Your task to perform on an android device: Open Maps and search for coffee Image 0: 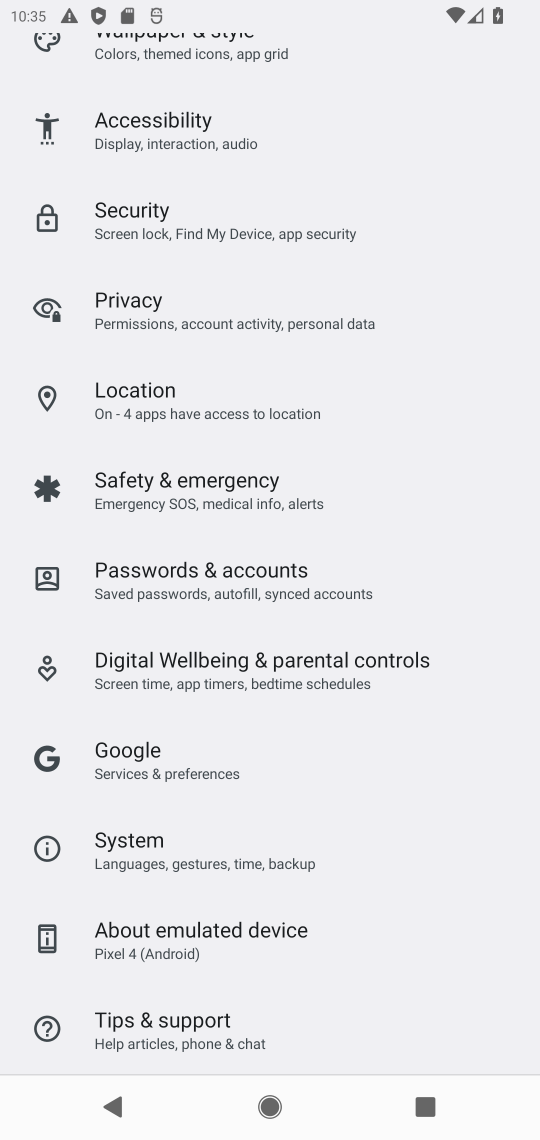
Step 0: press home button
Your task to perform on an android device: Open Maps and search for coffee Image 1: 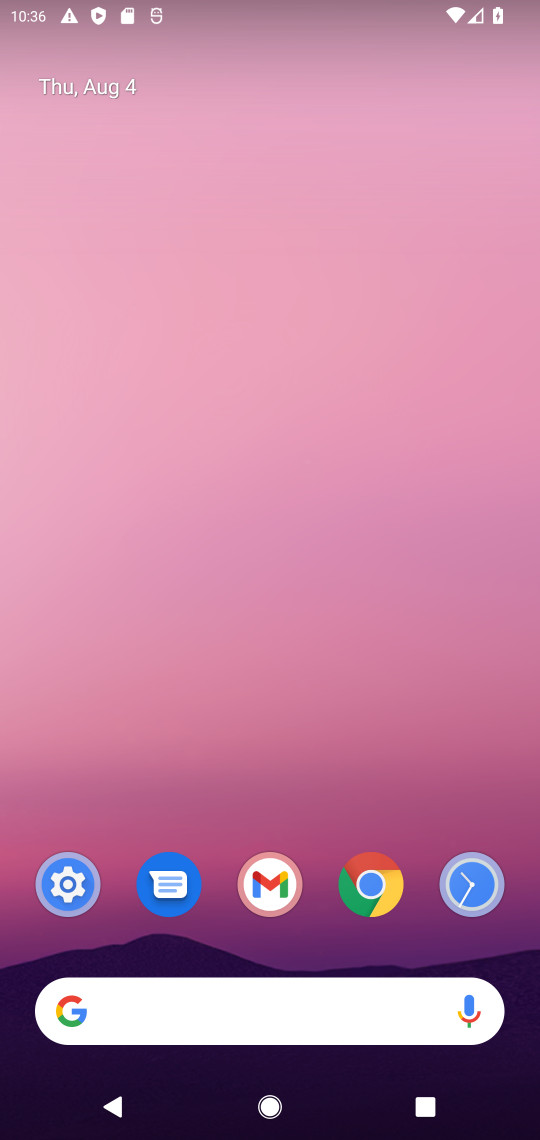
Step 1: drag from (347, 1003) to (323, 185)
Your task to perform on an android device: Open Maps and search for coffee Image 2: 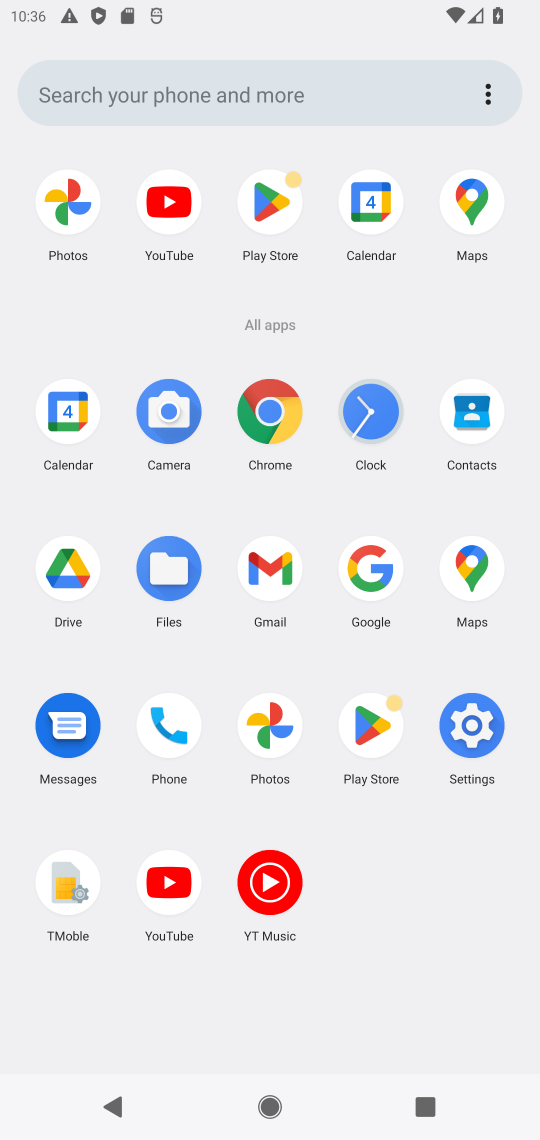
Step 2: click (484, 225)
Your task to perform on an android device: Open Maps and search for coffee Image 3: 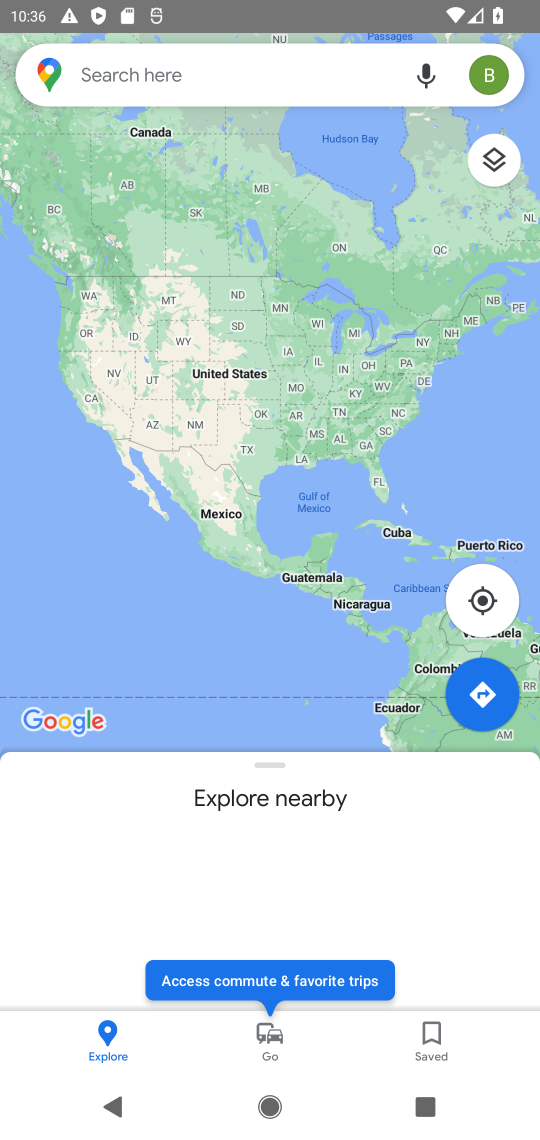
Step 3: click (161, 68)
Your task to perform on an android device: Open Maps and search for coffee Image 4: 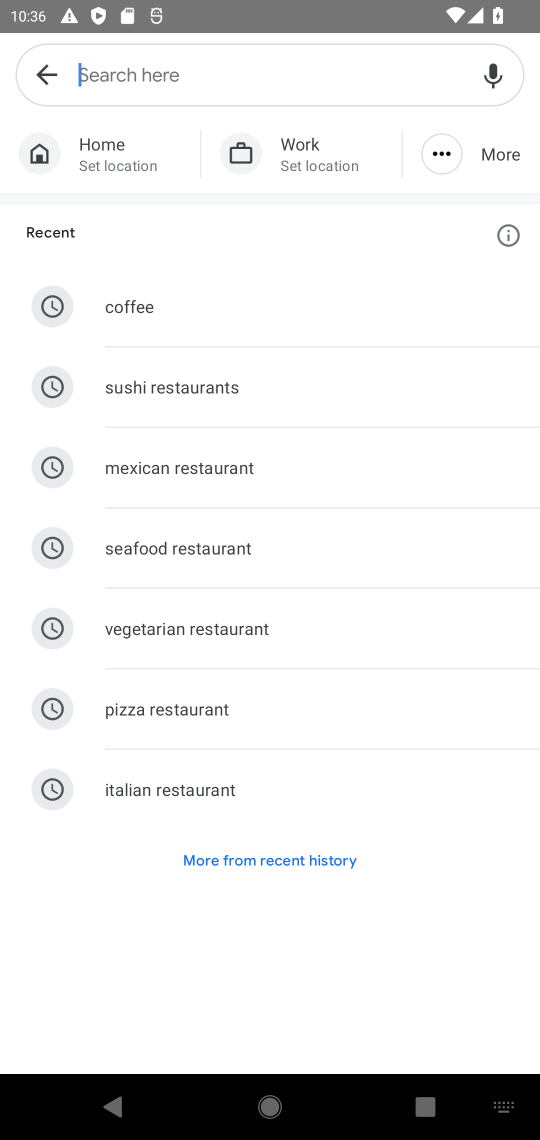
Step 4: type "coffee"
Your task to perform on an android device: Open Maps and search for coffee Image 5: 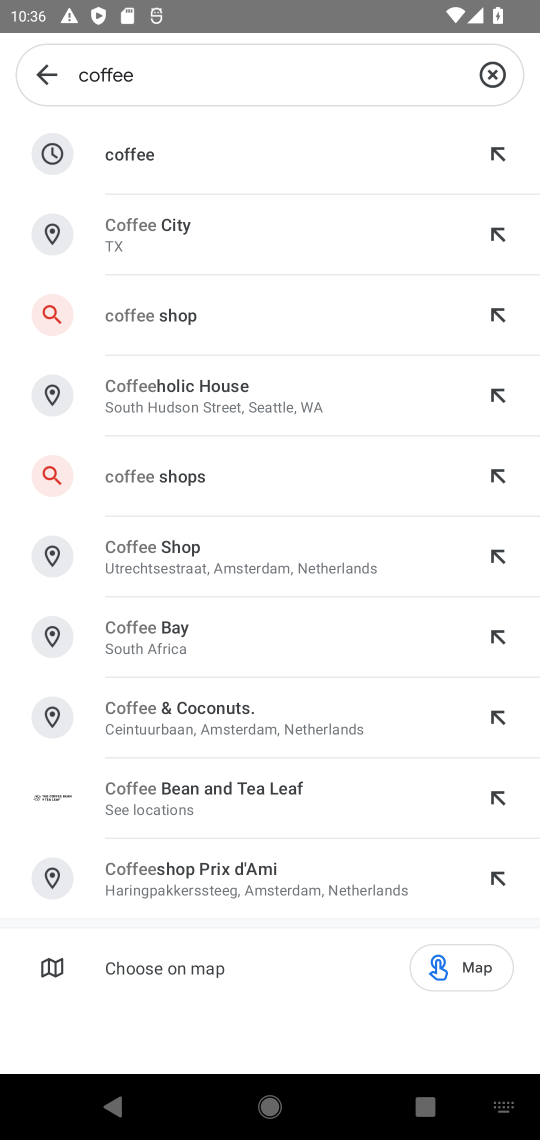
Step 5: click (175, 165)
Your task to perform on an android device: Open Maps and search for coffee Image 6: 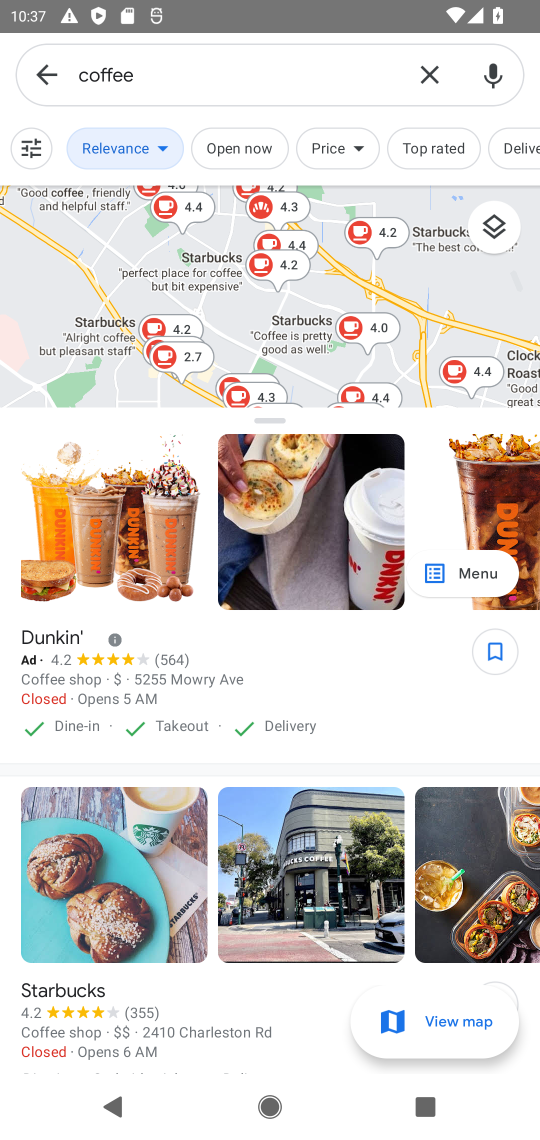
Step 6: task complete